Your task to perform on an android device: make emails show in primary in the gmail app Image 0: 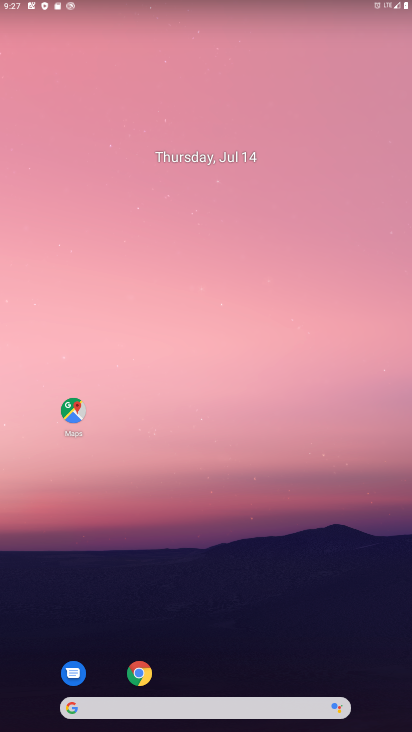
Step 0: drag from (193, 709) to (244, 357)
Your task to perform on an android device: make emails show in primary in the gmail app Image 1: 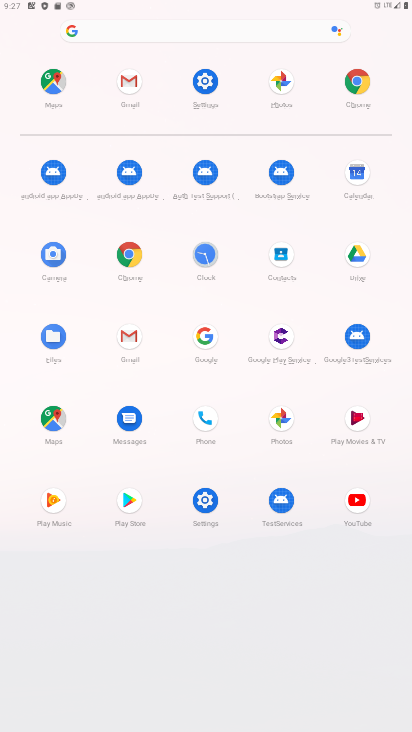
Step 1: click (126, 335)
Your task to perform on an android device: make emails show in primary in the gmail app Image 2: 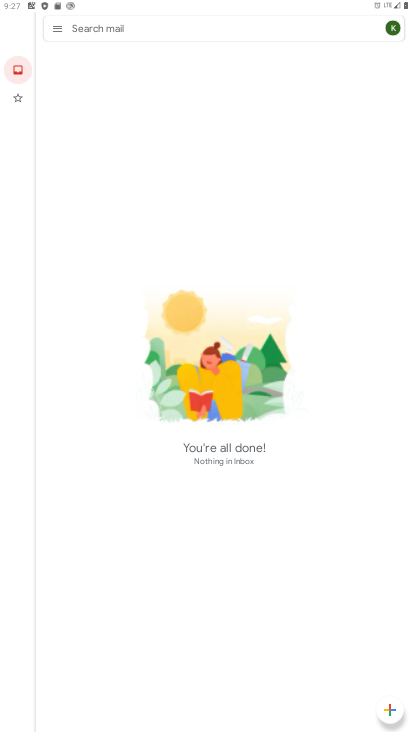
Step 2: click (57, 29)
Your task to perform on an android device: make emails show in primary in the gmail app Image 3: 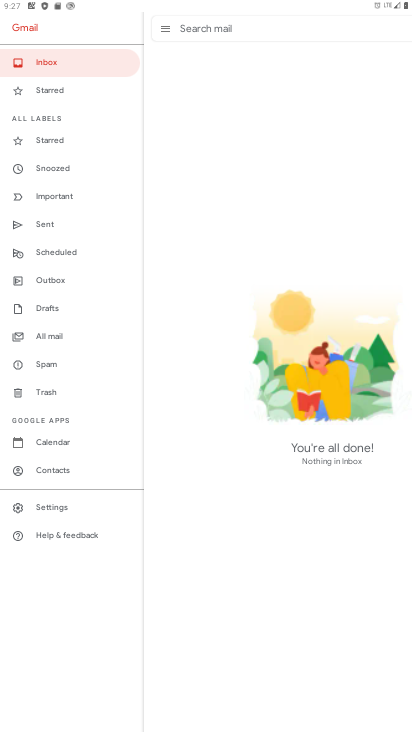
Step 3: click (48, 507)
Your task to perform on an android device: make emails show in primary in the gmail app Image 4: 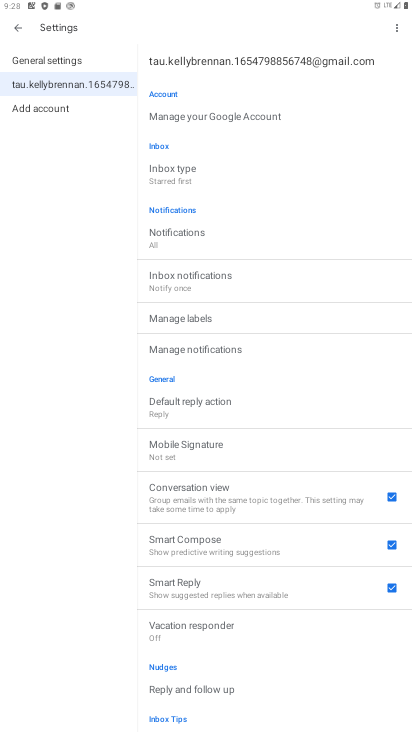
Step 4: click (177, 183)
Your task to perform on an android device: make emails show in primary in the gmail app Image 5: 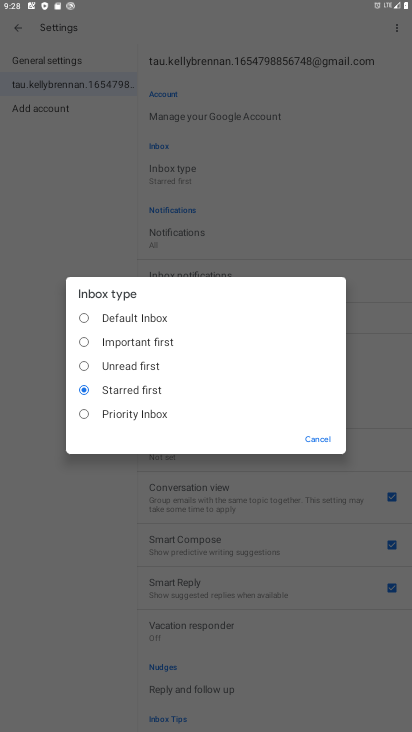
Step 5: click (85, 321)
Your task to perform on an android device: make emails show in primary in the gmail app Image 6: 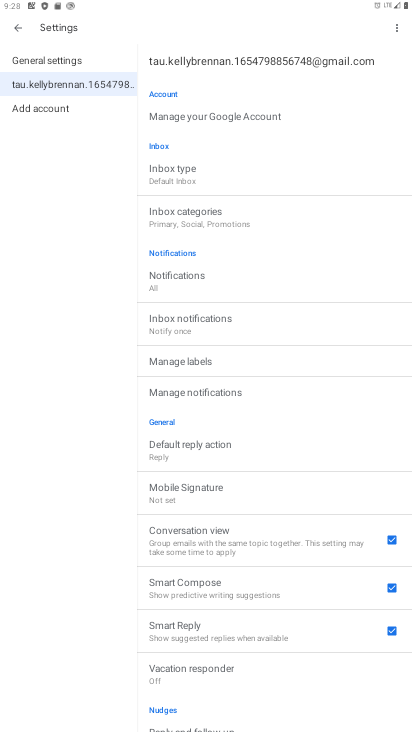
Step 6: click (216, 214)
Your task to perform on an android device: make emails show in primary in the gmail app Image 7: 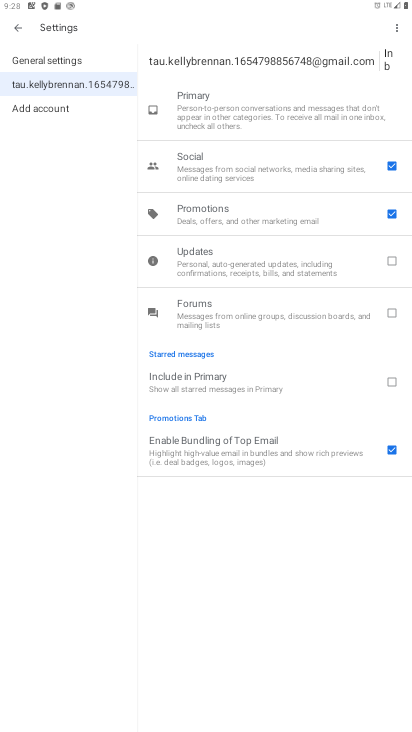
Step 7: click (387, 164)
Your task to perform on an android device: make emails show in primary in the gmail app Image 8: 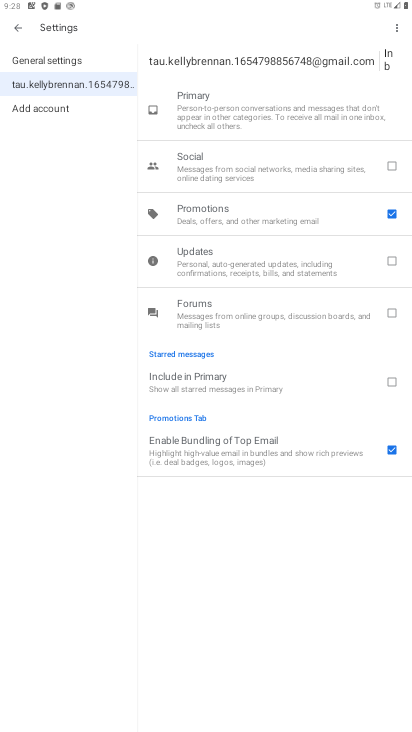
Step 8: click (393, 218)
Your task to perform on an android device: make emails show in primary in the gmail app Image 9: 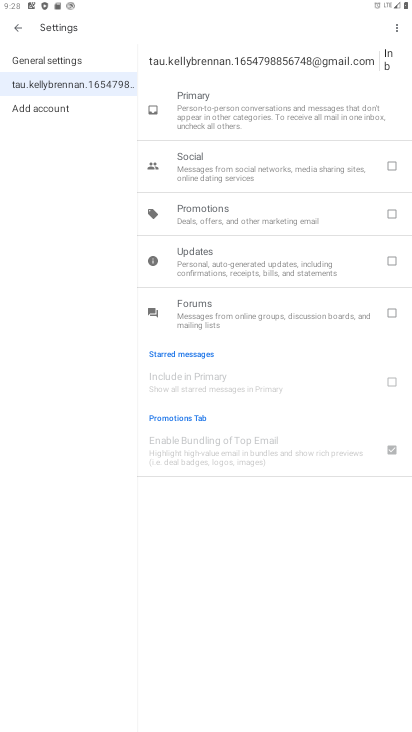
Step 9: task complete